Your task to perform on an android device: Search for pizza restaurants on Maps Image 0: 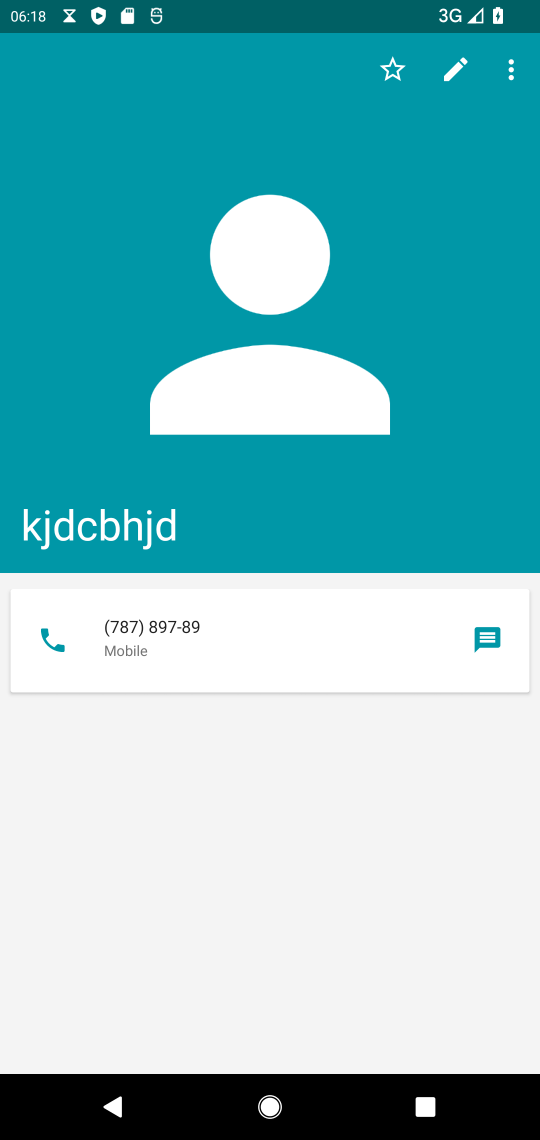
Step 0: press home button
Your task to perform on an android device: Search for pizza restaurants on Maps Image 1: 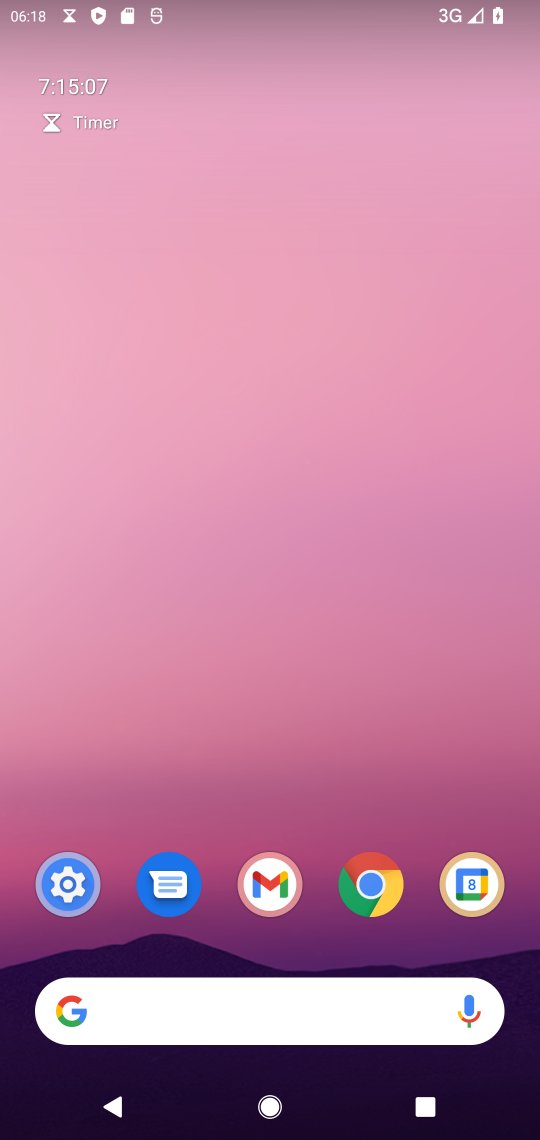
Step 1: drag from (406, 826) to (362, 19)
Your task to perform on an android device: Search for pizza restaurants on Maps Image 2: 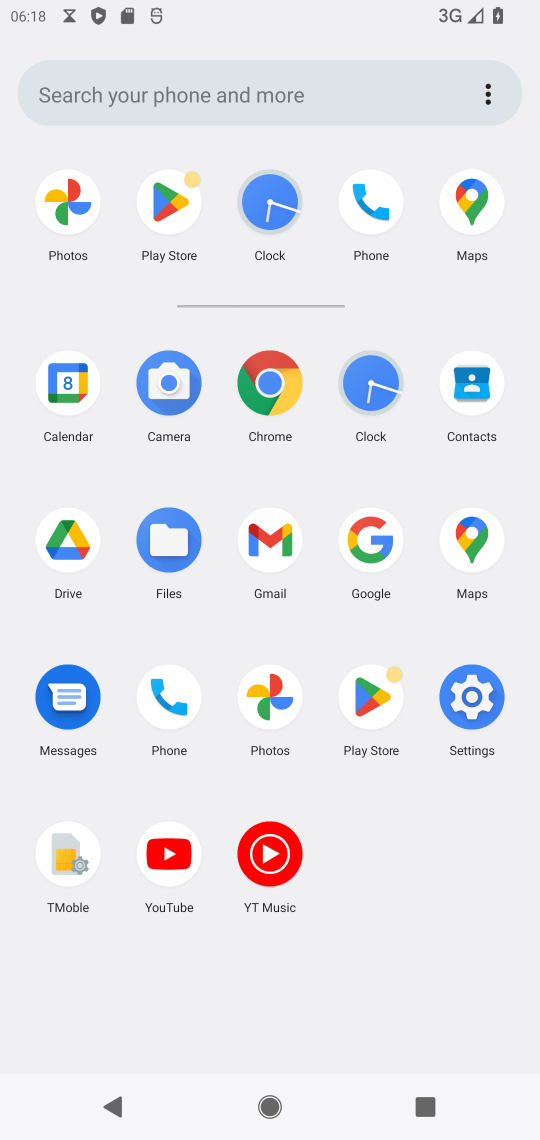
Step 2: click (473, 572)
Your task to perform on an android device: Search for pizza restaurants on Maps Image 3: 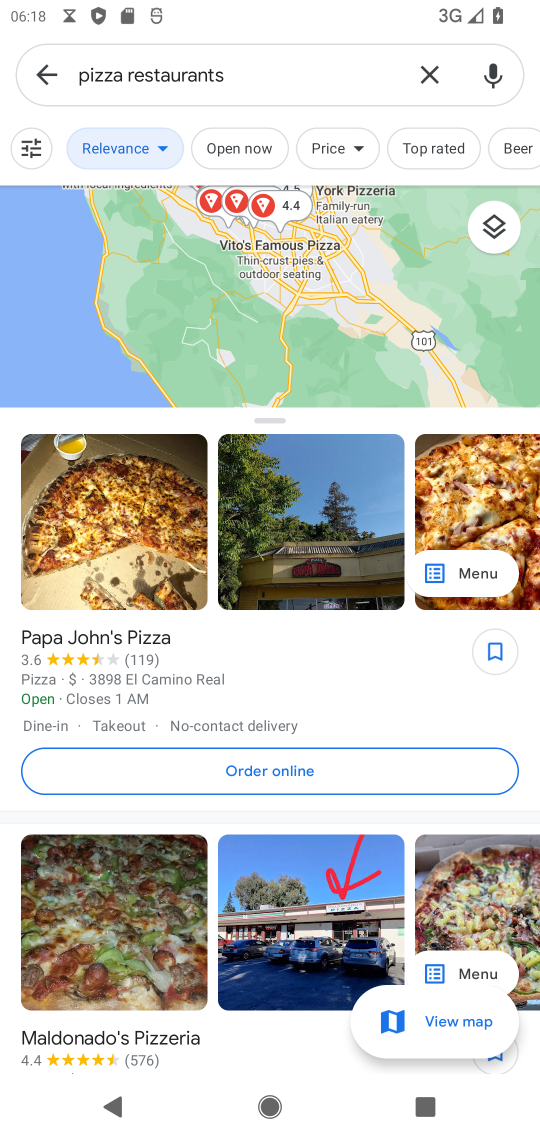
Step 3: task complete